Your task to perform on an android device: What's on my calendar tomorrow? Image 0: 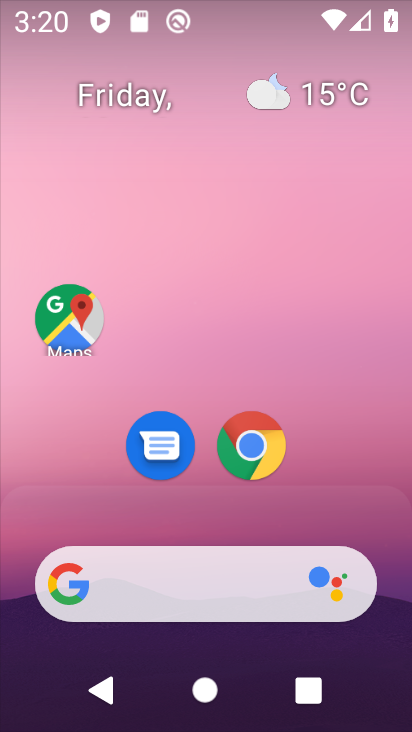
Step 0: drag from (139, 548) to (197, 68)
Your task to perform on an android device: What's on my calendar tomorrow? Image 1: 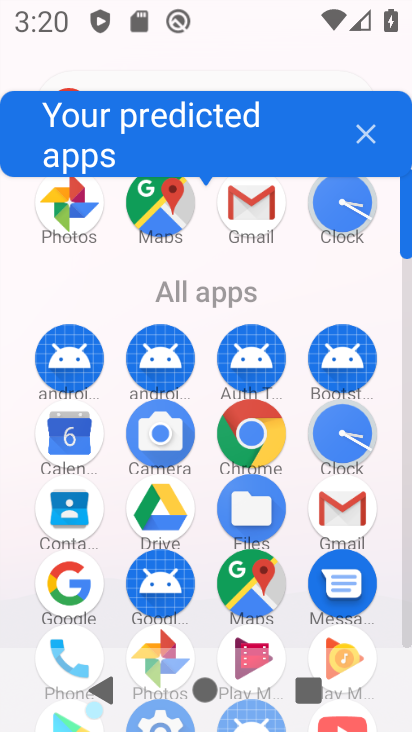
Step 1: click (72, 441)
Your task to perform on an android device: What's on my calendar tomorrow? Image 2: 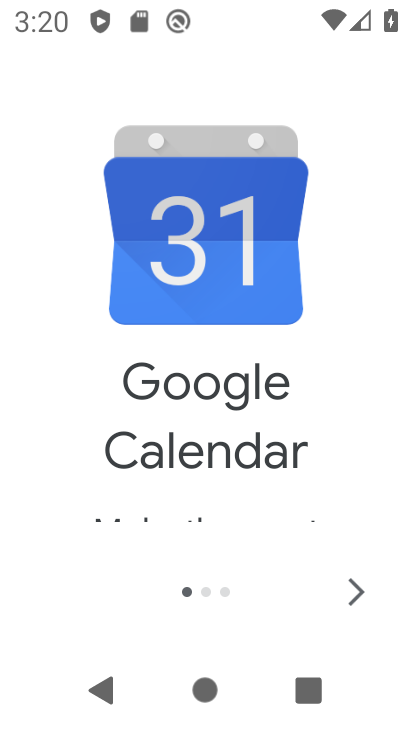
Step 2: click (355, 601)
Your task to perform on an android device: What's on my calendar tomorrow? Image 3: 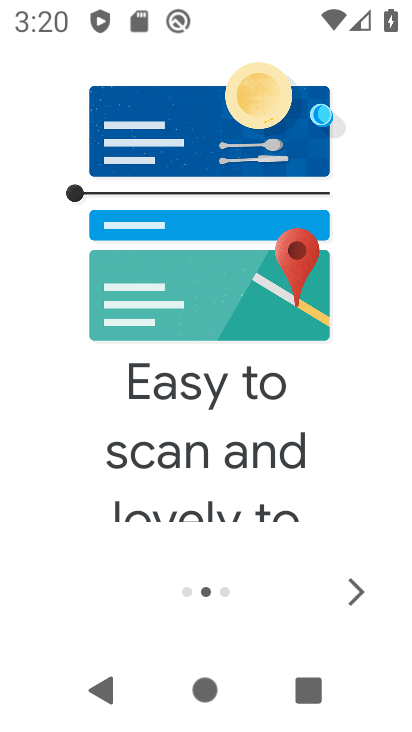
Step 3: click (355, 601)
Your task to perform on an android device: What's on my calendar tomorrow? Image 4: 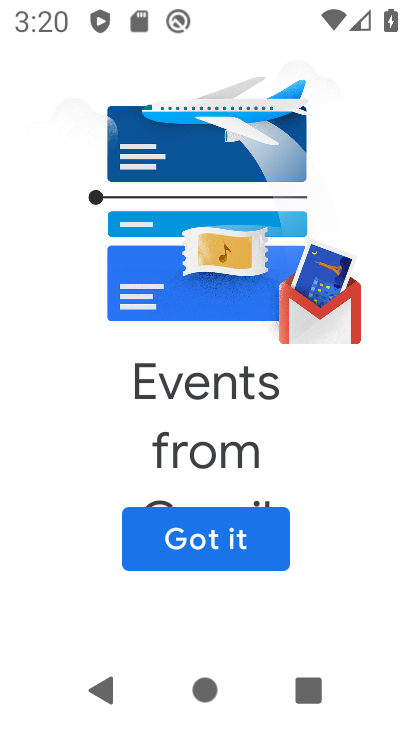
Step 4: click (241, 540)
Your task to perform on an android device: What's on my calendar tomorrow? Image 5: 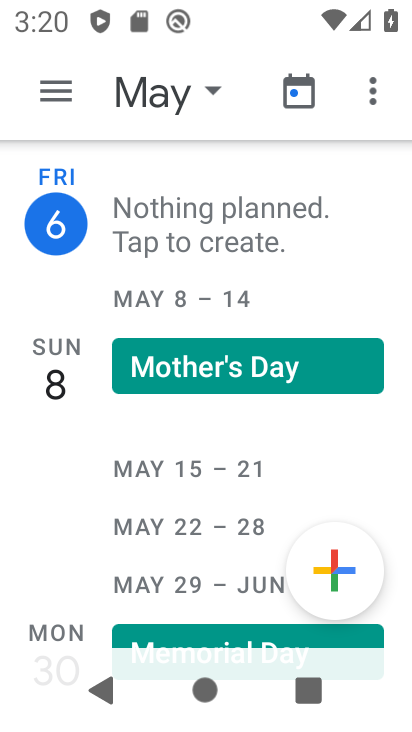
Step 5: click (74, 101)
Your task to perform on an android device: What's on my calendar tomorrow? Image 6: 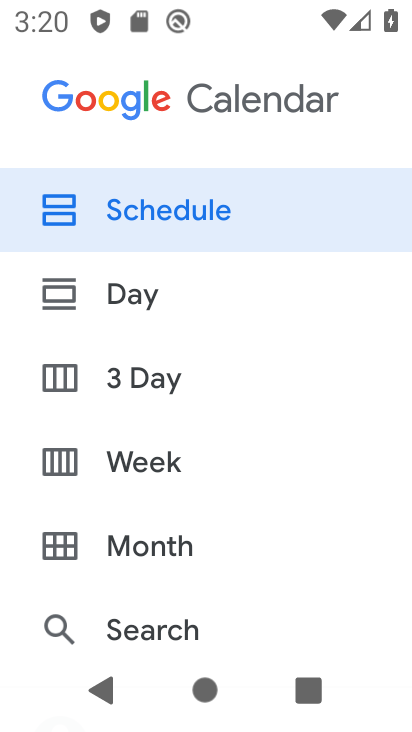
Step 6: press back button
Your task to perform on an android device: What's on my calendar tomorrow? Image 7: 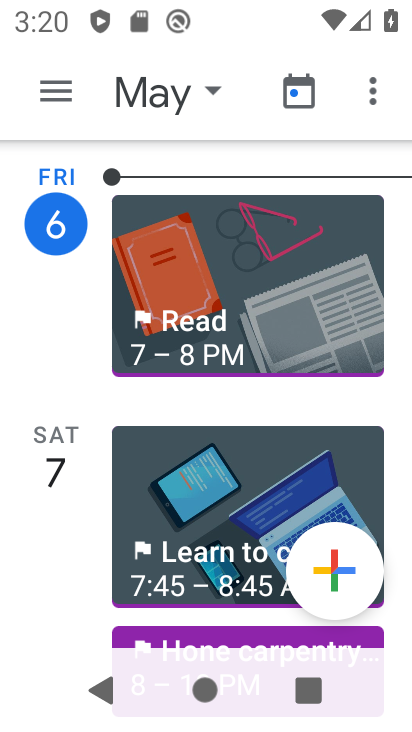
Step 7: click (48, 501)
Your task to perform on an android device: What's on my calendar tomorrow? Image 8: 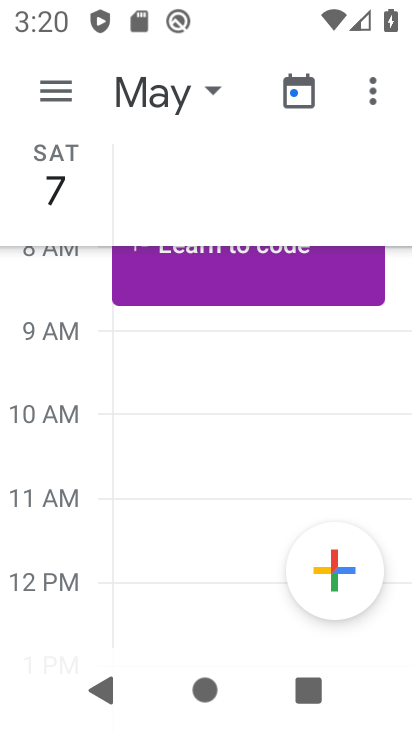
Step 8: task complete